Your task to perform on an android device: check google app version Image 0: 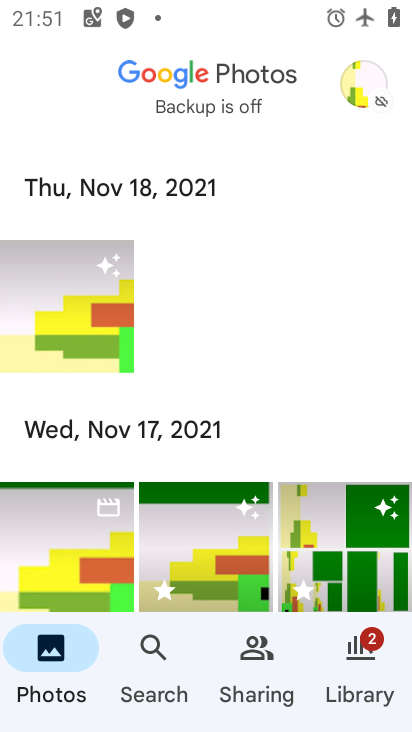
Step 0: press home button
Your task to perform on an android device: check google app version Image 1: 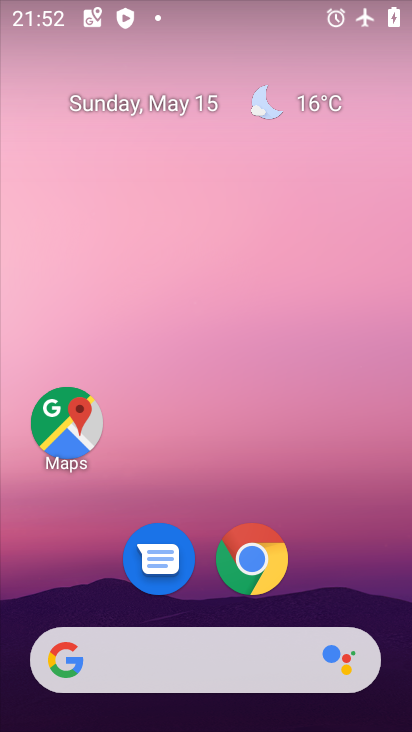
Step 1: drag from (338, 509) to (269, 90)
Your task to perform on an android device: check google app version Image 2: 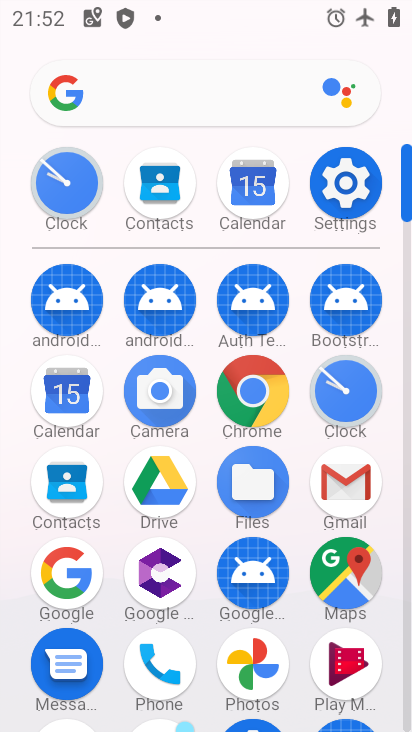
Step 2: click (73, 562)
Your task to perform on an android device: check google app version Image 3: 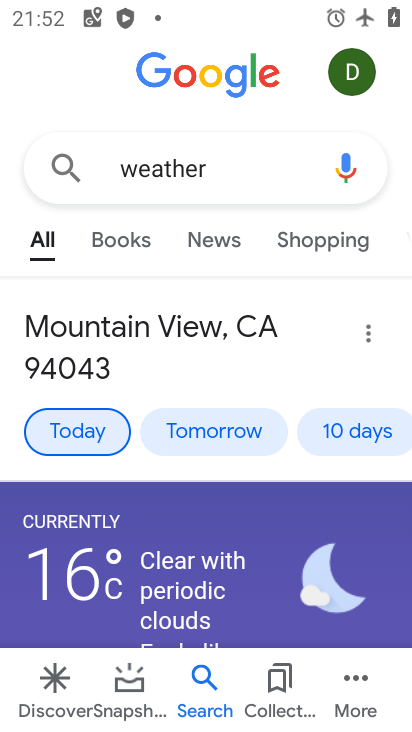
Step 3: click (355, 680)
Your task to perform on an android device: check google app version Image 4: 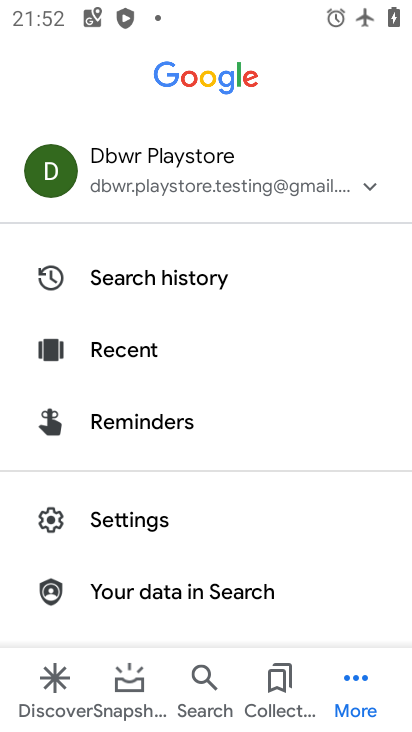
Step 4: click (135, 521)
Your task to perform on an android device: check google app version Image 5: 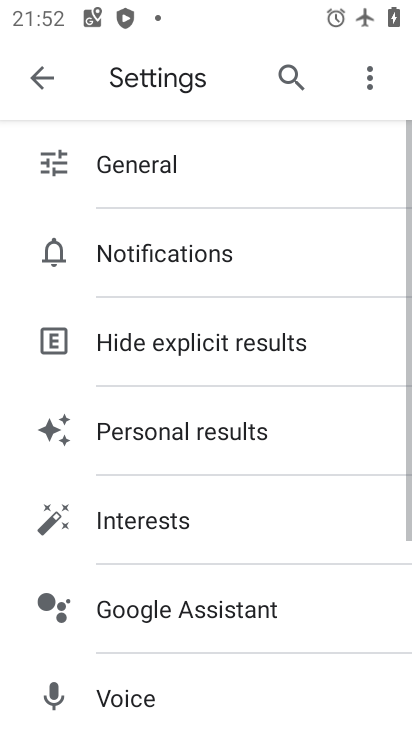
Step 5: drag from (217, 510) to (154, 7)
Your task to perform on an android device: check google app version Image 6: 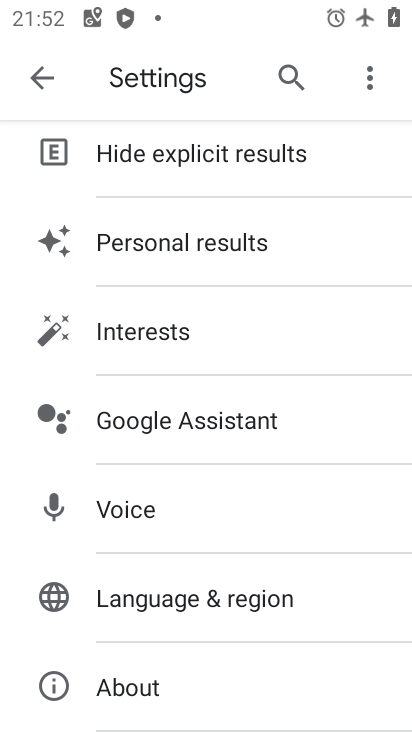
Step 6: click (131, 690)
Your task to perform on an android device: check google app version Image 7: 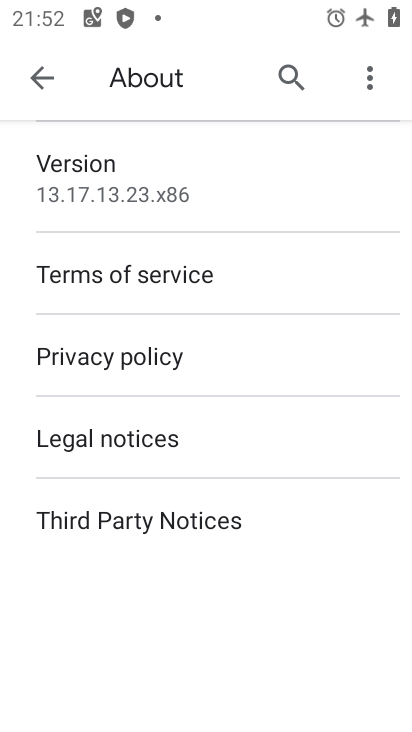
Step 7: task complete